Your task to perform on an android device: turn off smart reply in the gmail app Image 0: 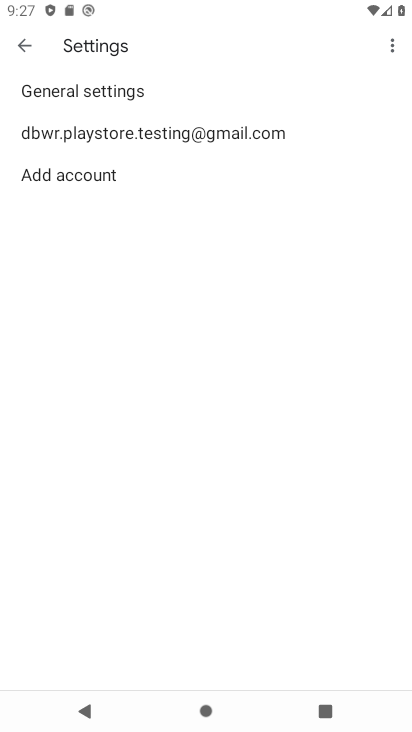
Step 0: click (126, 133)
Your task to perform on an android device: turn off smart reply in the gmail app Image 1: 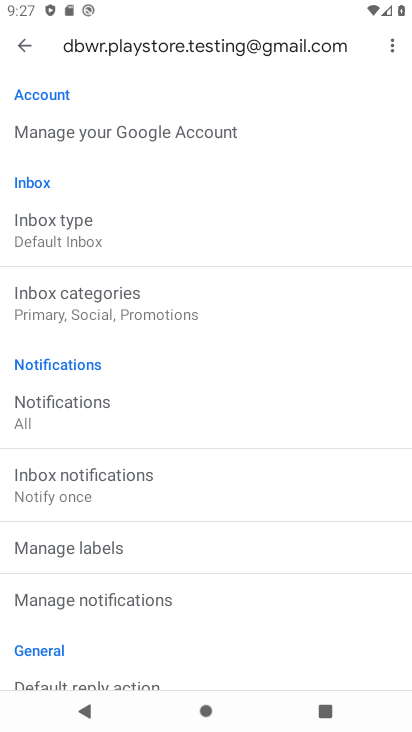
Step 1: drag from (170, 665) to (207, 98)
Your task to perform on an android device: turn off smart reply in the gmail app Image 2: 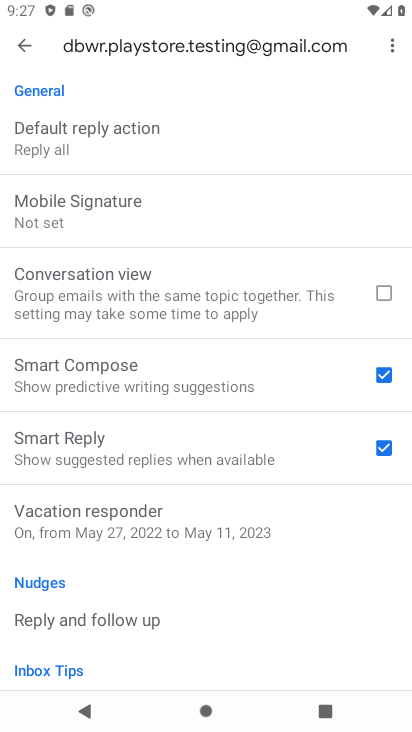
Step 2: click (390, 455)
Your task to perform on an android device: turn off smart reply in the gmail app Image 3: 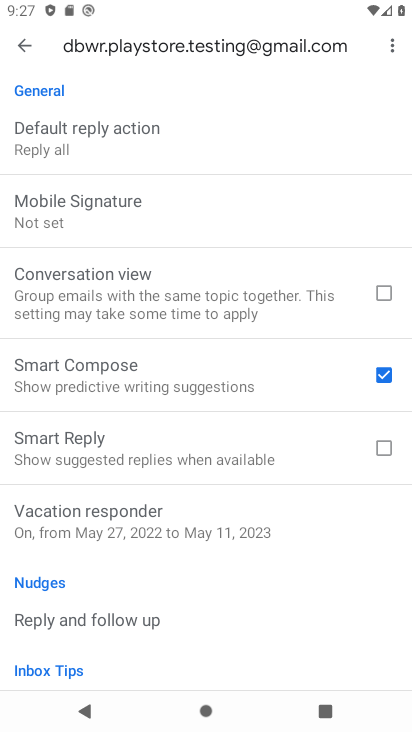
Step 3: task complete